Your task to perform on an android device: turn on data saver in the chrome app Image 0: 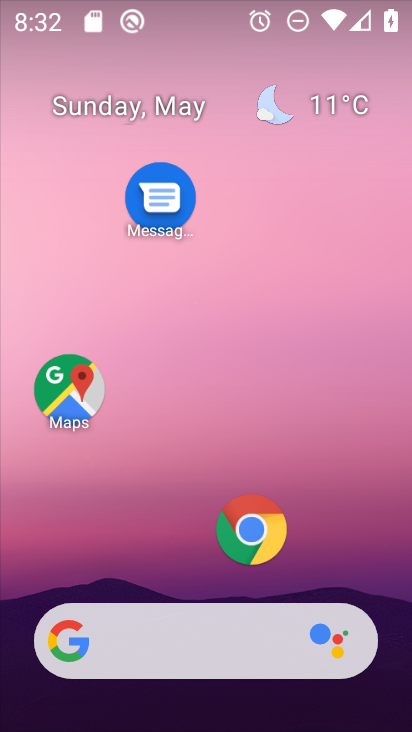
Step 0: click (249, 525)
Your task to perform on an android device: turn on data saver in the chrome app Image 1: 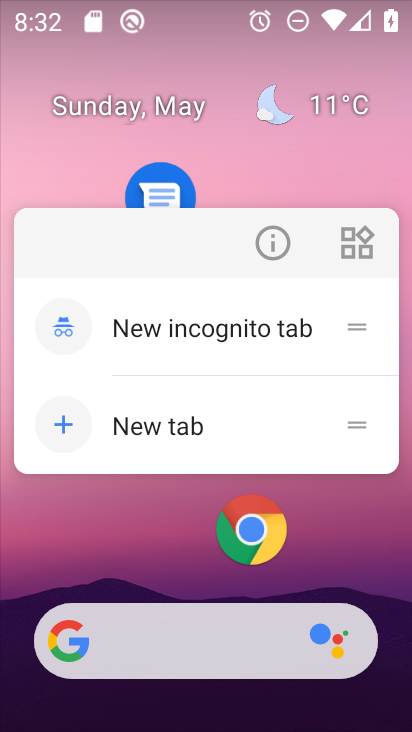
Step 1: click (324, 531)
Your task to perform on an android device: turn on data saver in the chrome app Image 2: 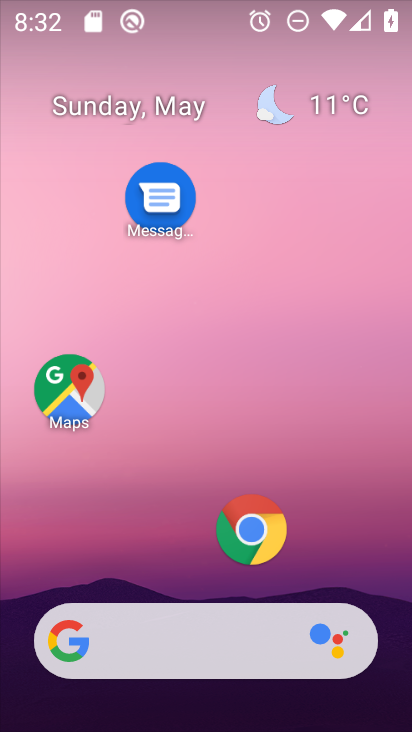
Step 2: click (246, 520)
Your task to perform on an android device: turn on data saver in the chrome app Image 3: 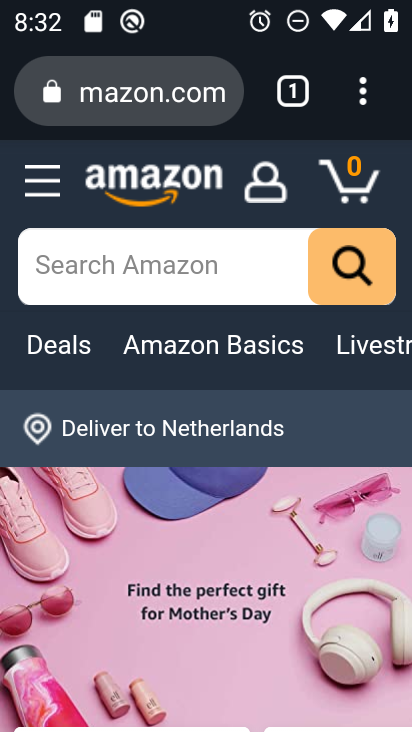
Step 3: click (365, 92)
Your task to perform on an android device: turn on data saver in the chrome app Image 4: 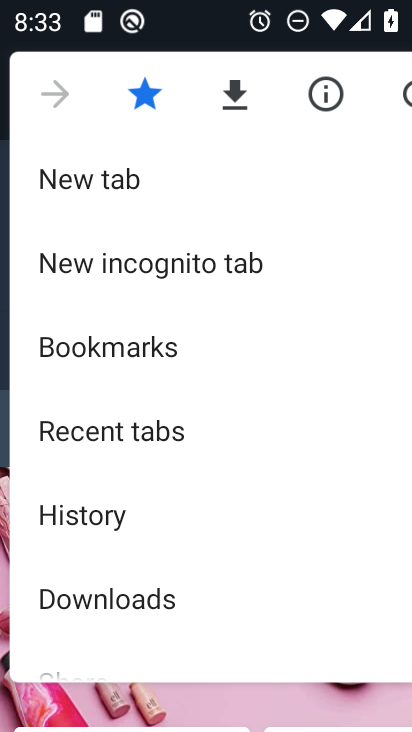
Step 4: drag from (203, 617) to (214, 59)
Your task to perform on an android device: turn on data saver in the chrome app Image 5: 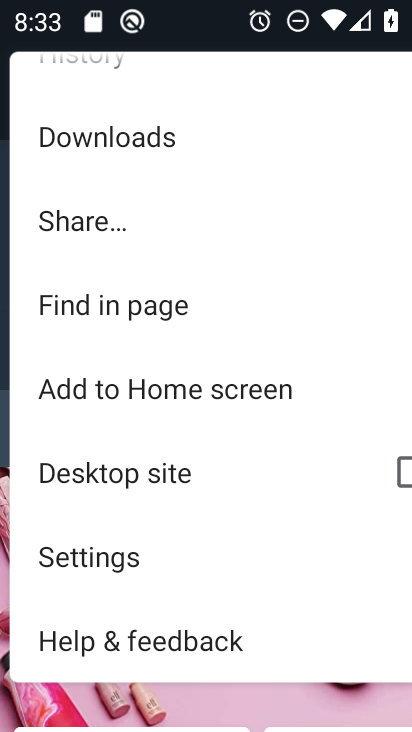
Step 5: click (154, 552)
Your task to perform on an android device: turn on data saver in the chrome app Image 6: 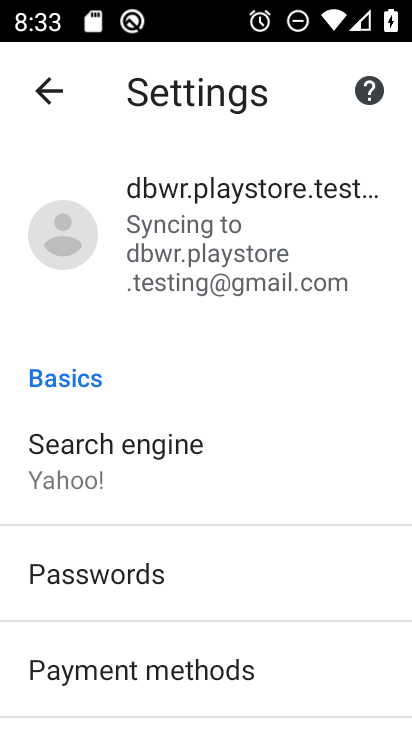
Step 6: drag from (270, 660) to (310, 122)
Your task to perform on an android device: turn on data saver in the chrome app Image 7: 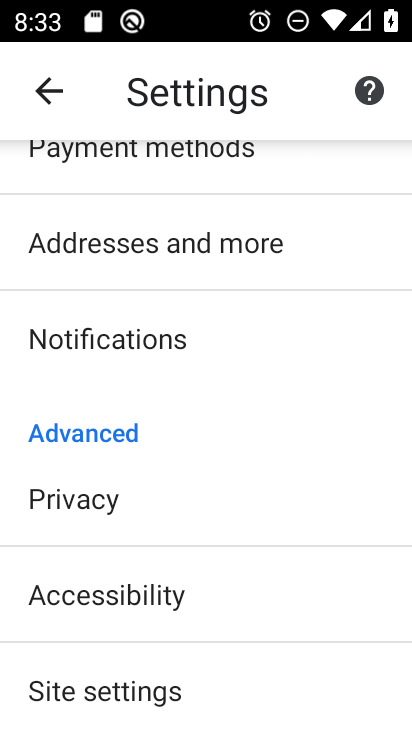
Step 7: drag from (212, 690) to (262, 120)
Your task to perform on an android device: turn on data saver in the chrome app Image 8: 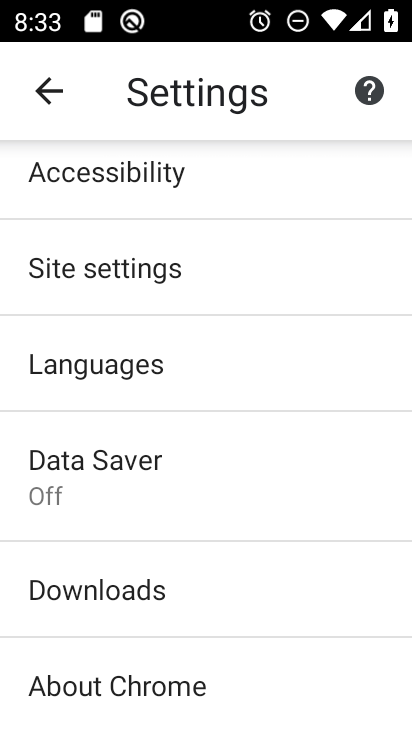
Step 8: click (117, 478)
Your task to perform on an android device: turn on data saver in the chrome app Image 9: 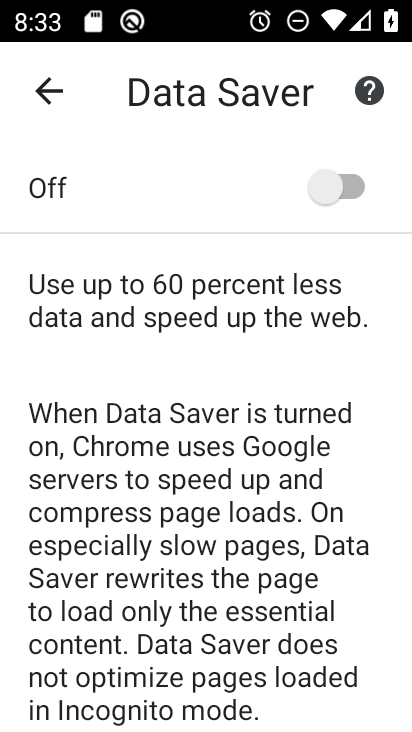
Step 9: click (347, 188)
Your task to perform on an android device: turn on data saver in the chrome app Image 10: 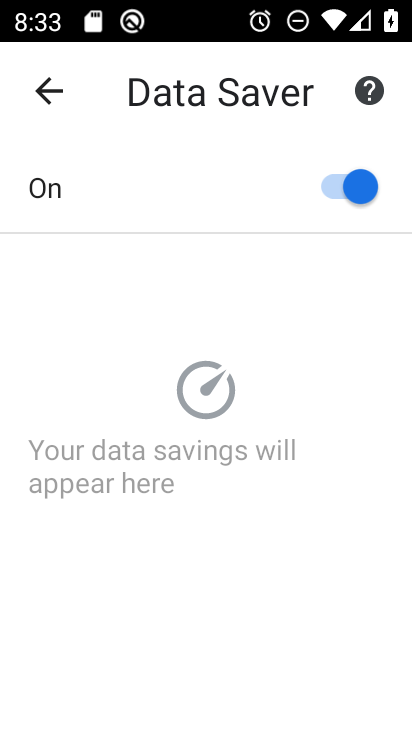
Step 10: task complete